Your task to perform on an android device: empty trash in the gmail app Image 0: 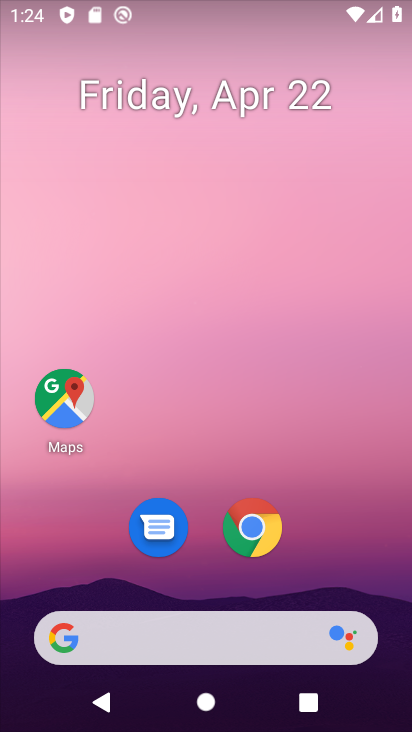
Step 0: drag from (203, 574) to (248, 316)
Your task to perform on an android device: empty trash in the gmail app Image 1: 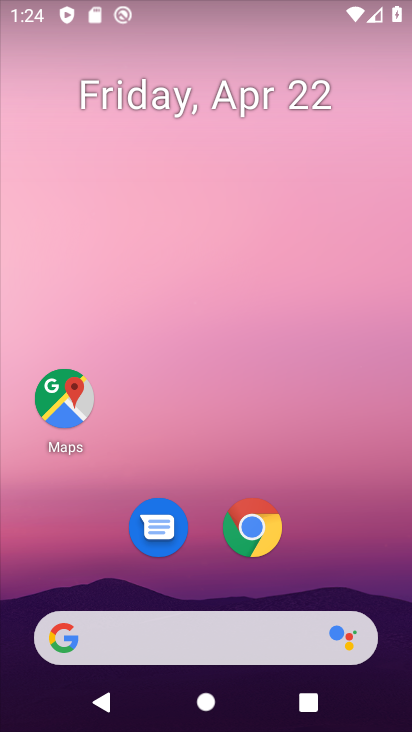
Step 1: drag from (230, 574) to (257, 308)
Your task to perform on an android device: empty trash in the gmail app Image 2: 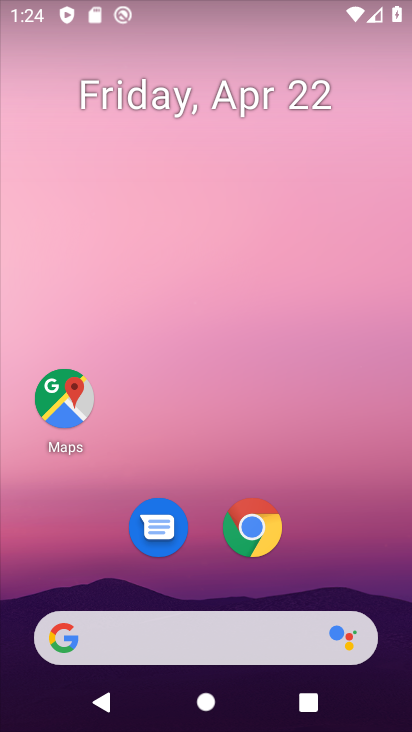
Step 2: drag from (222, 257) to (224, 176)
Your task to perform on an android device: empty trash in the gmail app Image 3: 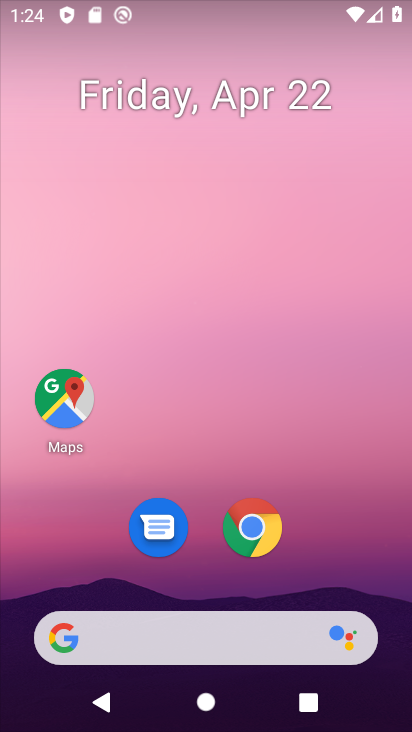
Step 3: drag from (188, 569) to (264, 322)
Your task to perform on an android device: empty trash in the gmail app Image 4: 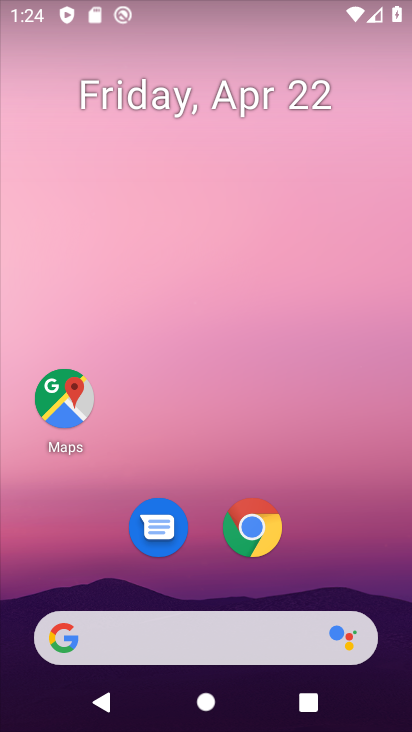
Step 4: drag from (211, 554) to (226, 304)
Your task to perform on an android device: empty trash in the gmail app Image 5: 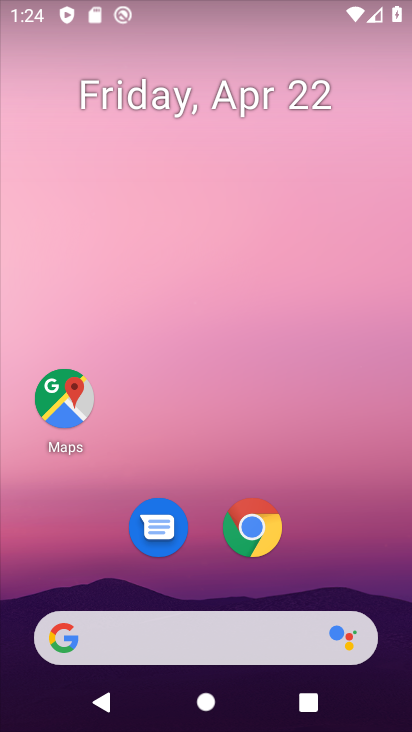
Step 5: drag from (216, 552) to (244, 231)
Your task to perform on an android device: empty trash in the gmail app Image 6: 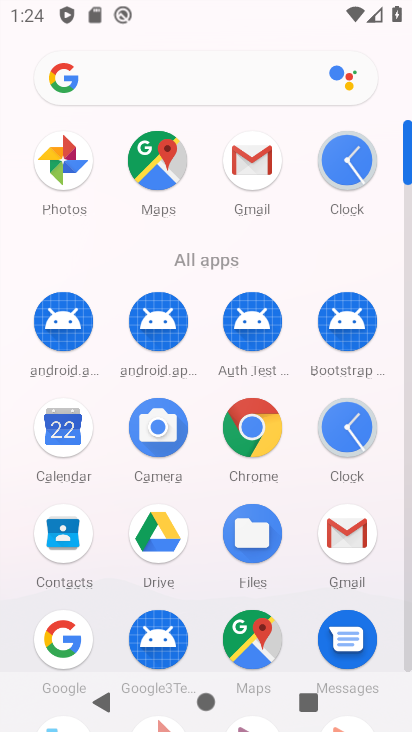
Step 6: drag from (209, 509) to (232, 225)
Your task to perform on an android device: empty trash in the gmail app Image 7: 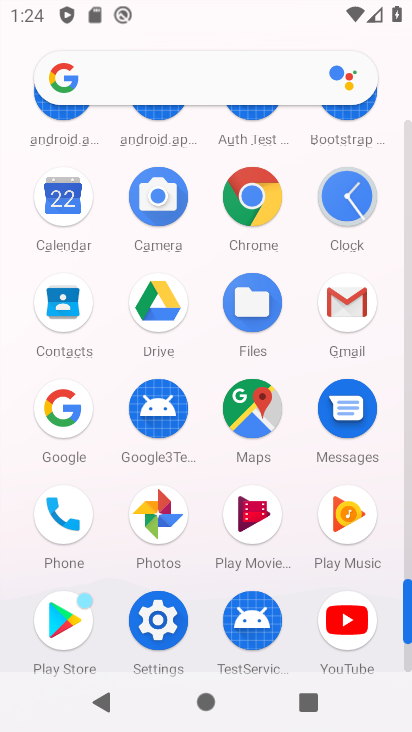
Step 7: drag from (191, 583) to (212, 273)
Your task to perform on an android device: empty trash in the gmail app Image 8: 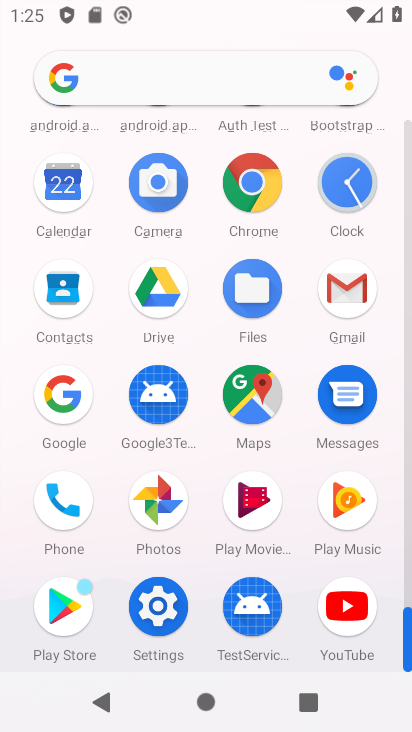
Step 8: click (340, 287)
Your task to perform on an android device: empty trash in the gmail app Image 9: 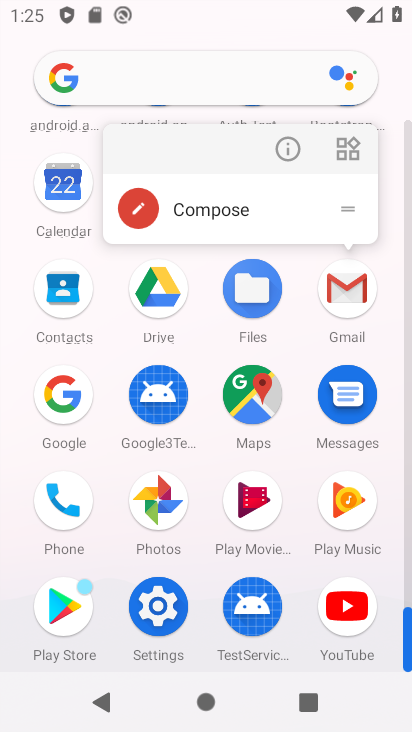
Step 9: click (289, 158)
Your task to perform on an android device: empty trash in the gmail app Image 10: 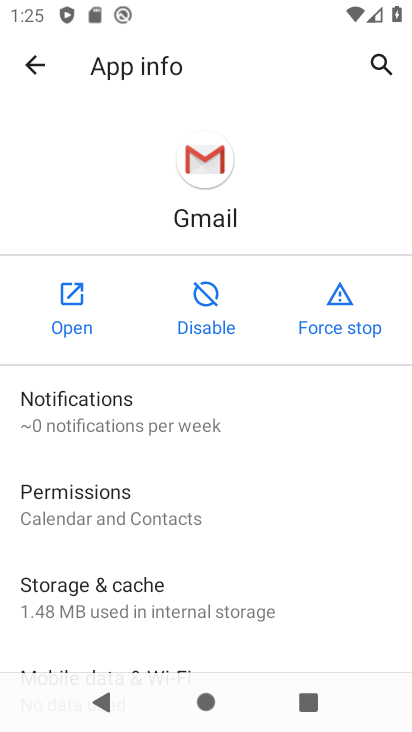
Step 10: click (60, 288)
Your task to perform on an android device: empty trash in the gmail app Image 11: 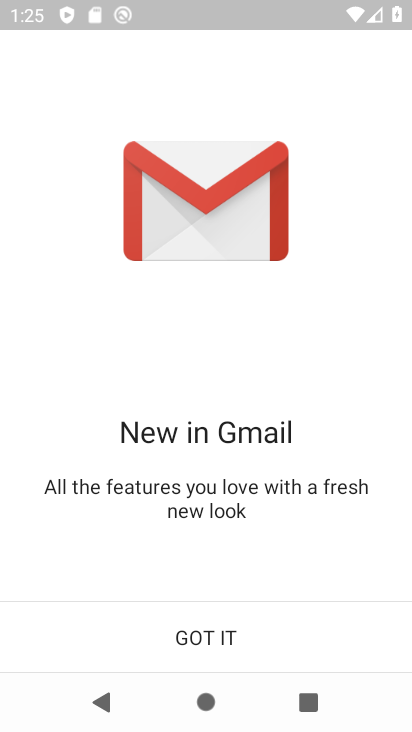
Step 11: click (202, 632)
Your task to perform on an android device: empty trash in the gmail app Image 12: 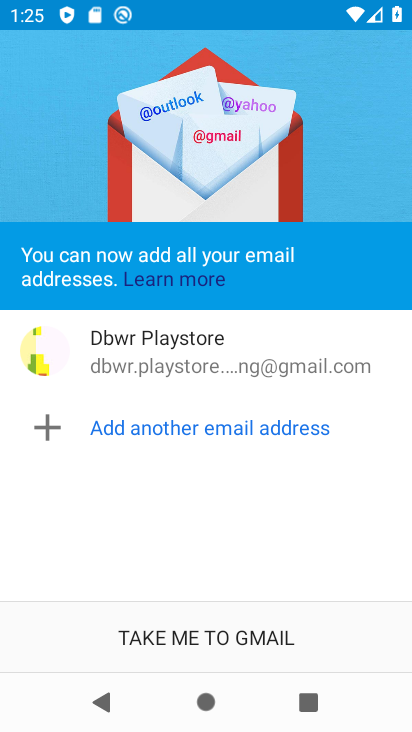
Step 12: click (200, 640)
Your task to perform on an android device: empty trash in the gmail app Image 13: 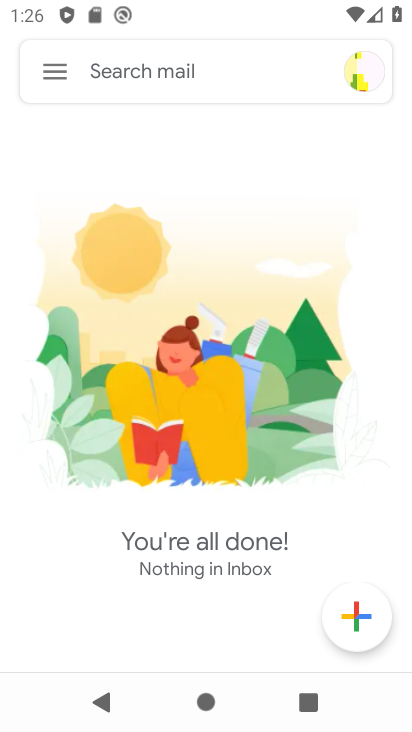
Step 13: drag from (202, 621) to (234, 228)
Your task to perform on an android device: empty trash in the gmail app Image 14: 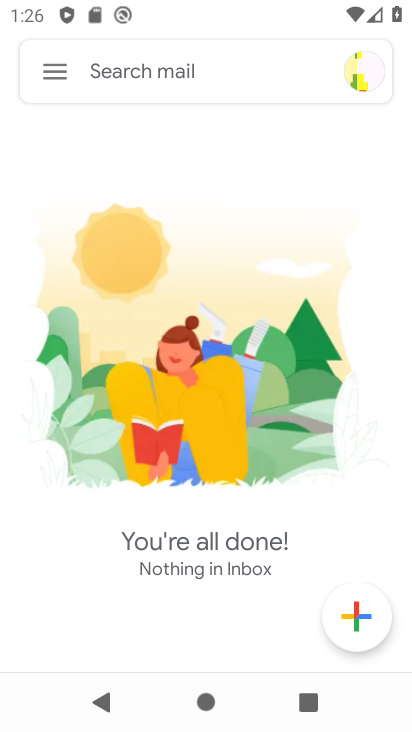
Step 14: click (66, 52)
Your task to perform on an android device: empty trash in the gmail app Image 15: 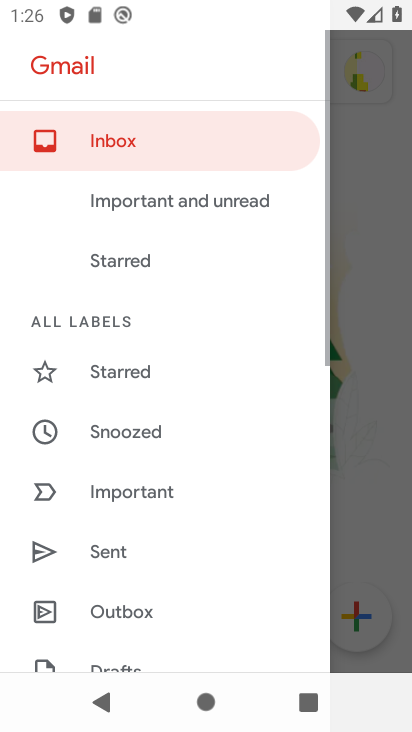
Step 15: drag from (155, 562) to (228, 47)
Your task to perform on an android device: empty trash in the gmail app Image 16: 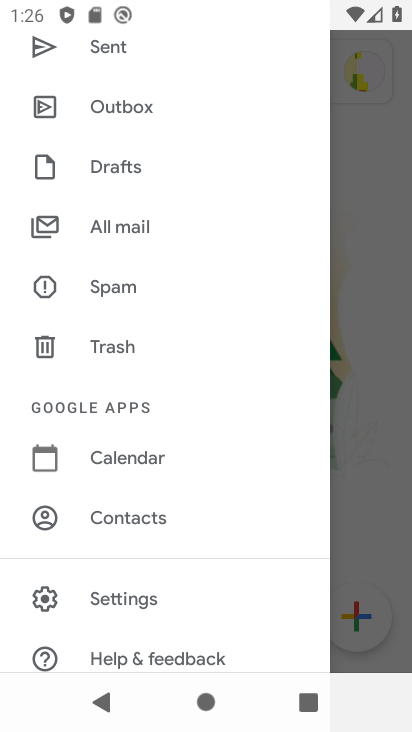
Step 16: click (135, 343)
Your task to perform on an android device: empty trash in the gmail app Image 17: 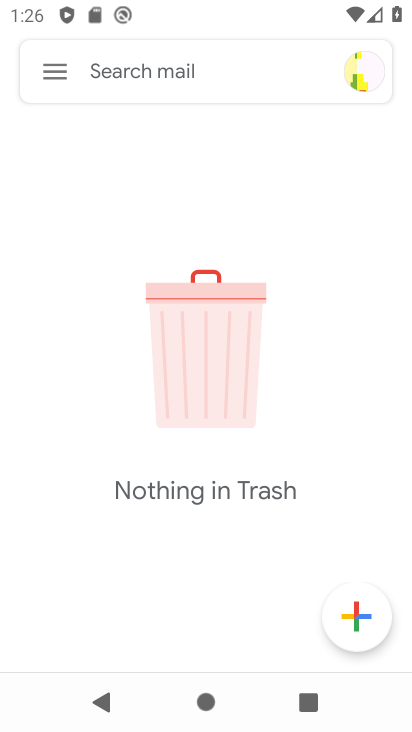
Step 17: task complete